Your task to perform on an android device: see creations saved in the google photos Image 0: 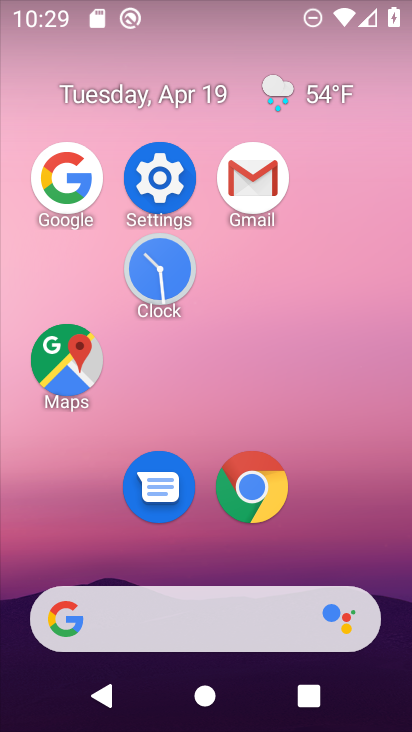
Step 0: drag from (335, 99) to (335, 31)
Your task to perform on an android device: see creations saved in the google photos Image 1: 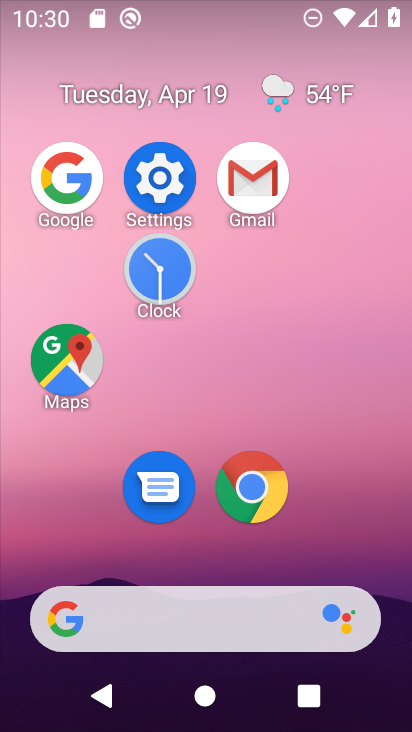
Step 1: drag from (288, 433) to (335, 48)
Your task to perform on an android device: see creations saved in the google photos Image 2: 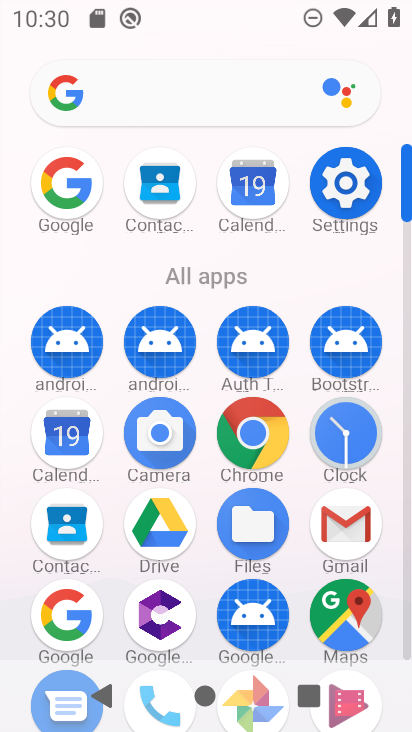
Step 2: drag from (298, 584) to (267, 231)
Your task to perform on an android device: see creations saved in the google photos Image 3: 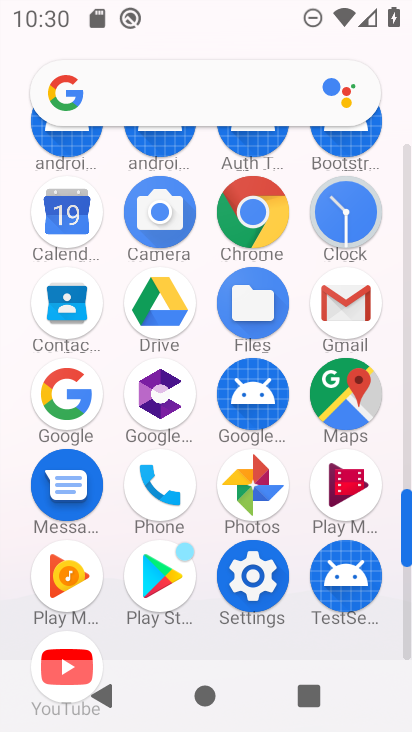
Step 3: click (255, 485)
Your task to perform on an android device: see creations saved in the google photos Image 4: 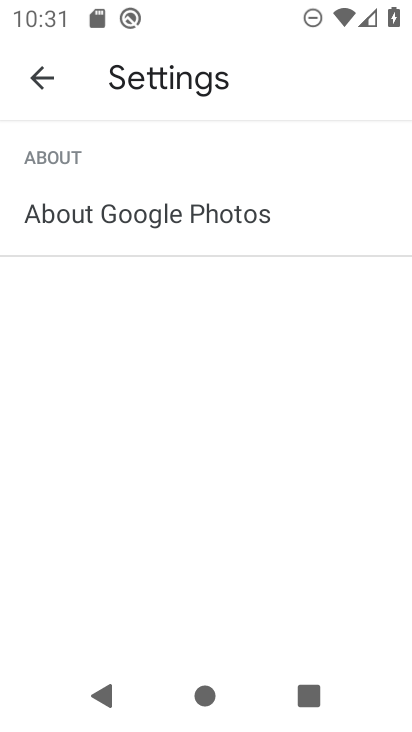
Step 4: click (40, 85)
Your task to perform on an android device: see creations saved in the google photos Image 5: 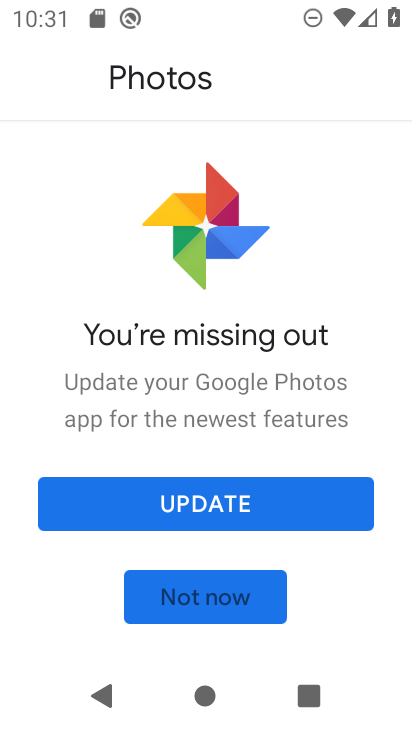
Step 5: click (219, 505)
Your task to perform on an android device: see creations saved in the google photos Image 6: 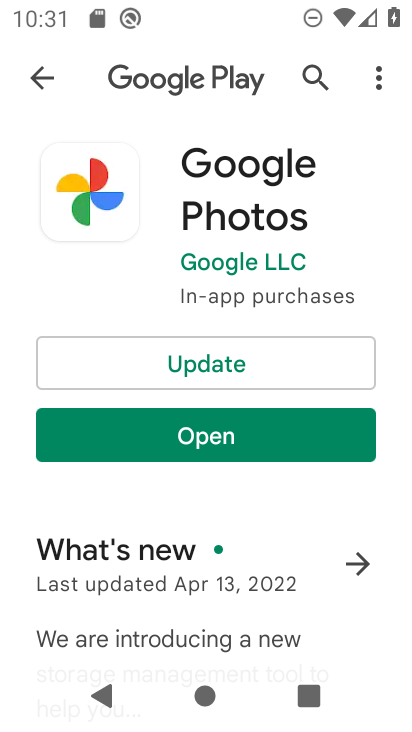
Step 6: click (312, 371)
Your task to perform on an android device: see creations saved in the google photos Image 7: 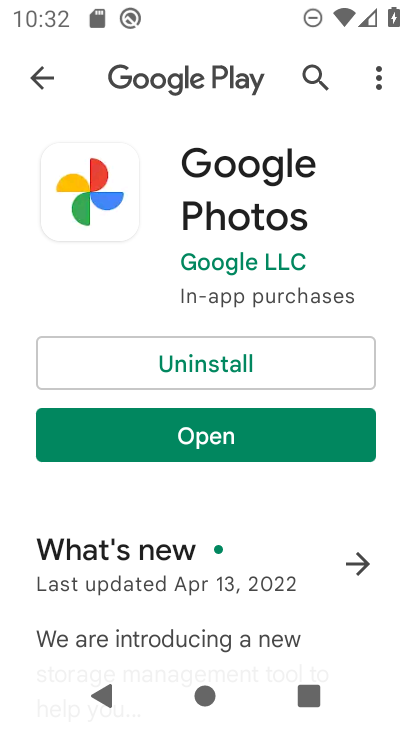
Step 7: click (241, 437)
Your task to perform on an android device: see creations saved in the google photos Image 8: 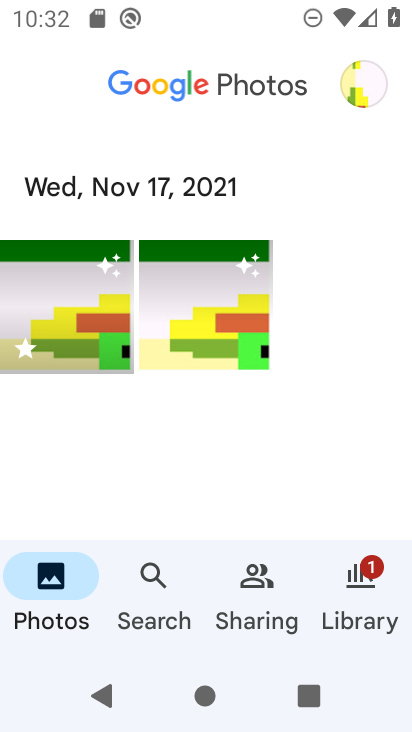
Step 8: click (73, 294)
Your task to perform on an android device: see creations saved in the google photos Image 9: 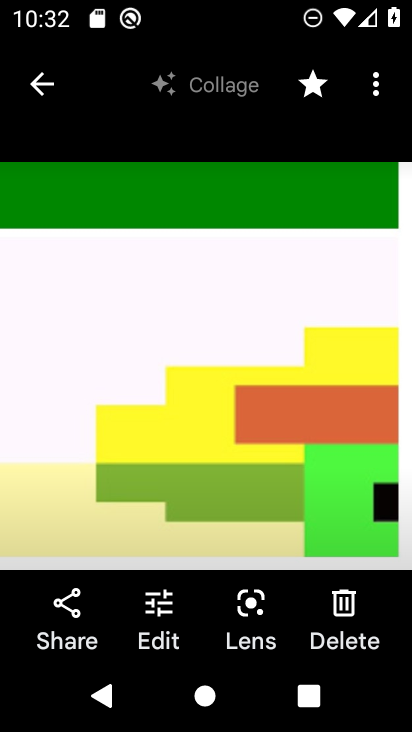
Step 9: task complete